Your task to perform on an android device: Open Google Image 0: 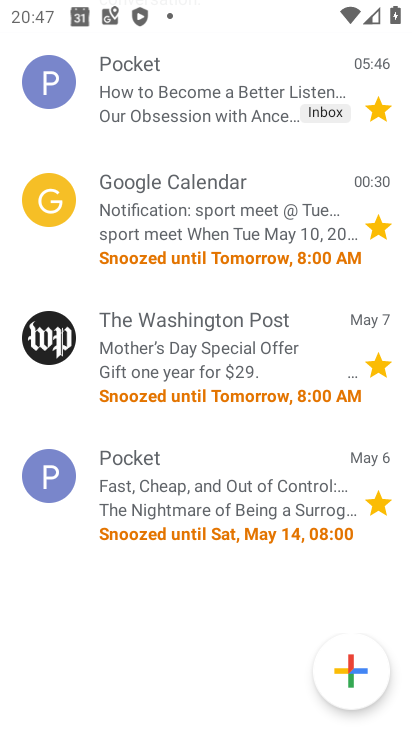
Step 0: press home button
Your task to perform on an android device: Open Google Image 1: 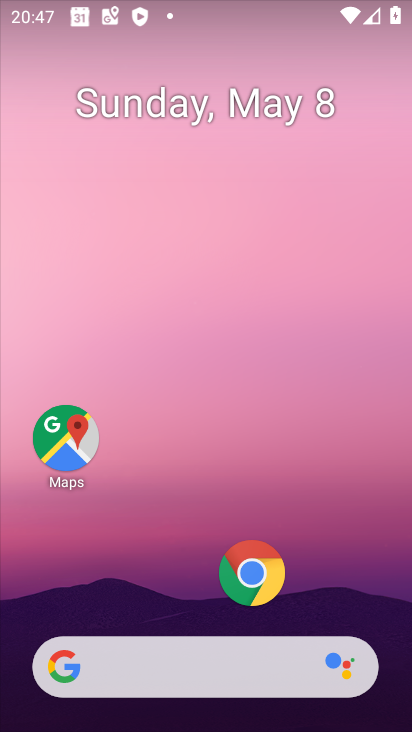
Step 1: drag from (138, 589) to (156, 148)
Your task to perform on an android device: Open Google Image 2: 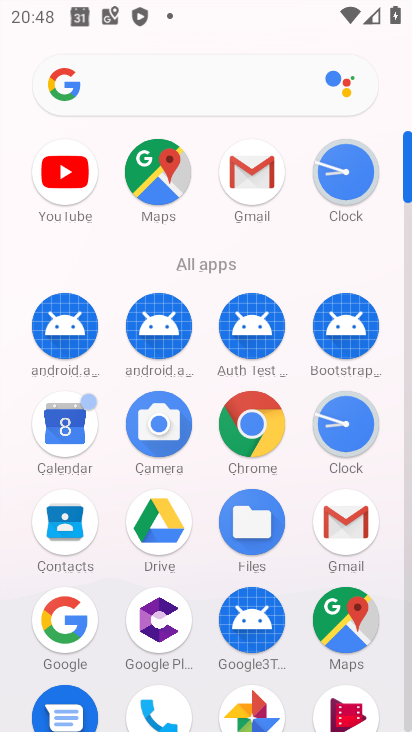
Step 2: click (63, 617)
Your task to perform on an android device: Open Google Image 3: 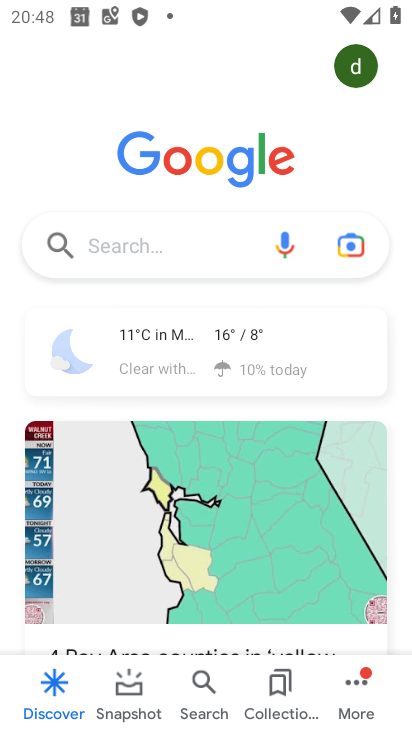
Step 3: task complete